Your task to perform on an android device: remove spam from my inbox in the gmail app Image 0: 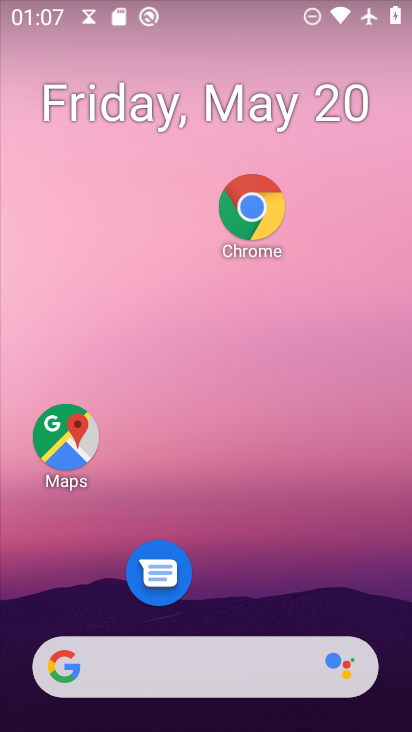
Step 0: drag from (281, 581) to (255, 30)
Your task to perform on an android device: remove spam from my inbox in the gmail app Image 1: 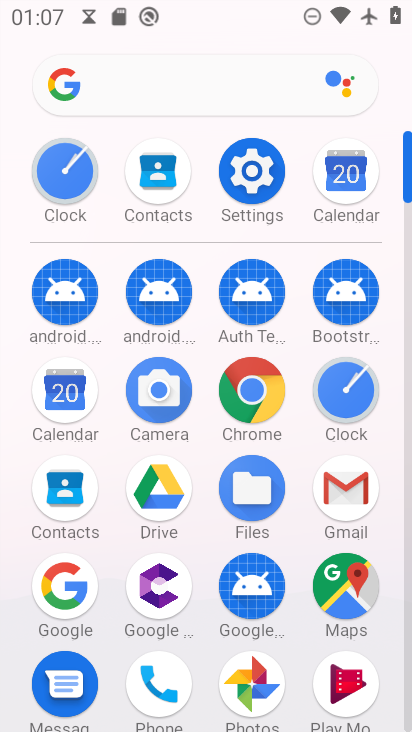
Step 1: click (333, 498)
Your task to perform on an android device: remove spam from my inbox in the gmail app Image 2: 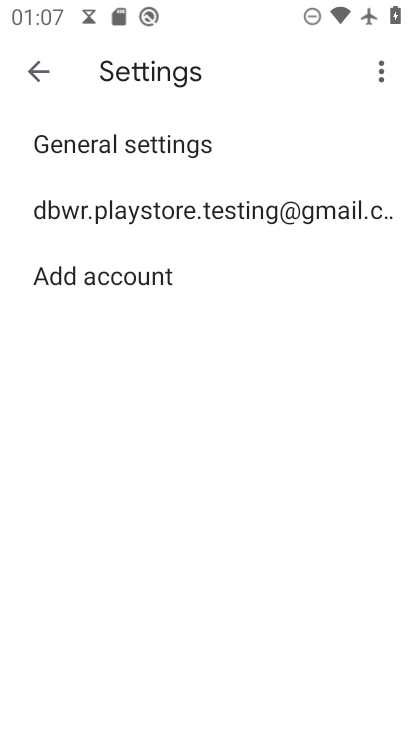
Step 2: click (30, 57)
Your task to perform on an android device: remove spam from my inbox in the gmail app Image 3: 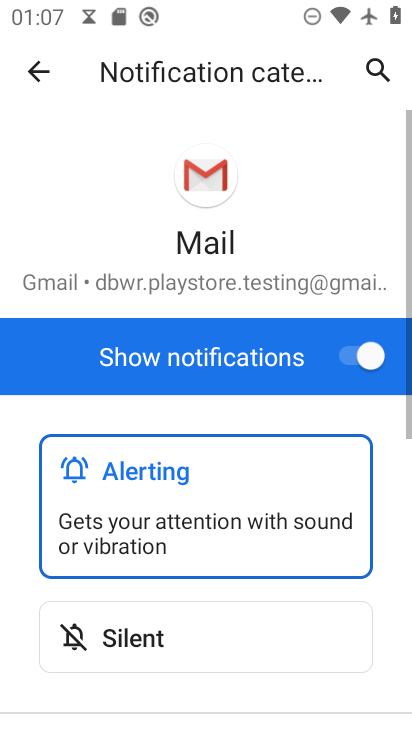
Step 3: click (38, 76)
Your task to perform on an android device: remove spam from my inbox in the gmail app Image 4: 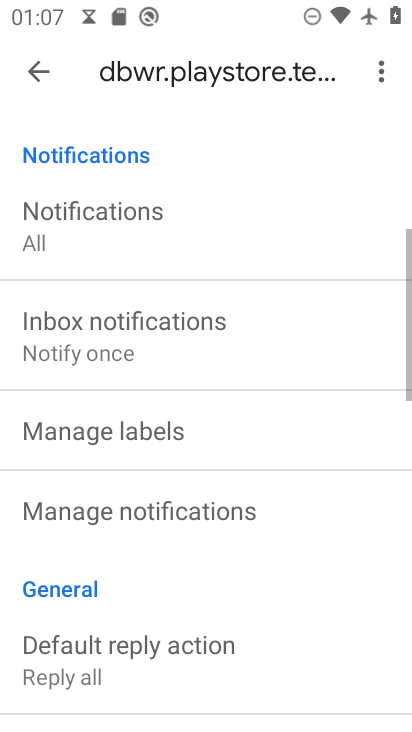
Step 4: click (38, 76)
Your task to perform on an android device: remove spam from my inbox in the gmail app Image 5: 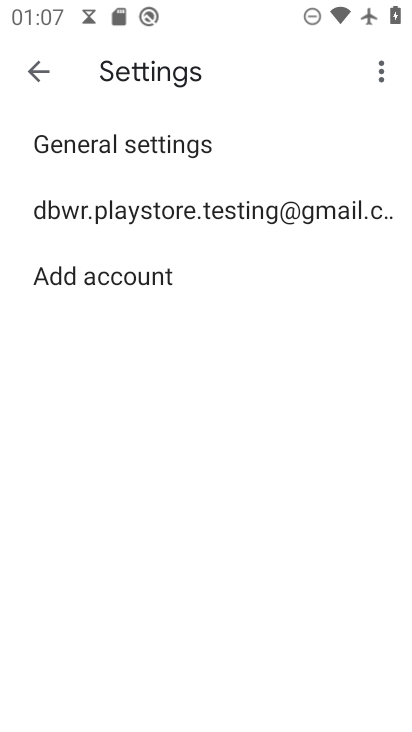
Step 5: click (37, 77)
Your task to perform on an android device: remove spam from my inbox in the gmail app Image 6: 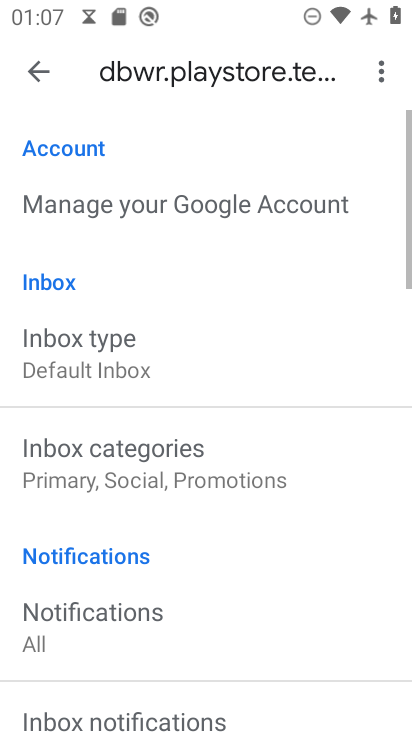
Step 6: click (37, 77)
Your task to perform on an android device: remove spam from my inbox in the gmail app Image 7: 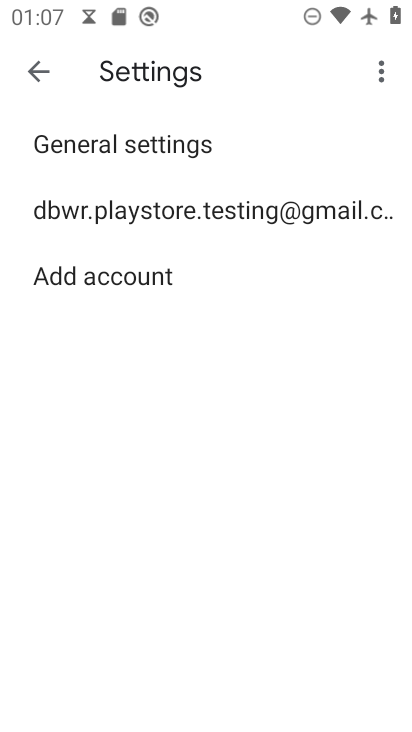
Step 7: click (37, 77)
Your task to perform on an android device: remove spam from my inbox in the gmail app Image 8: 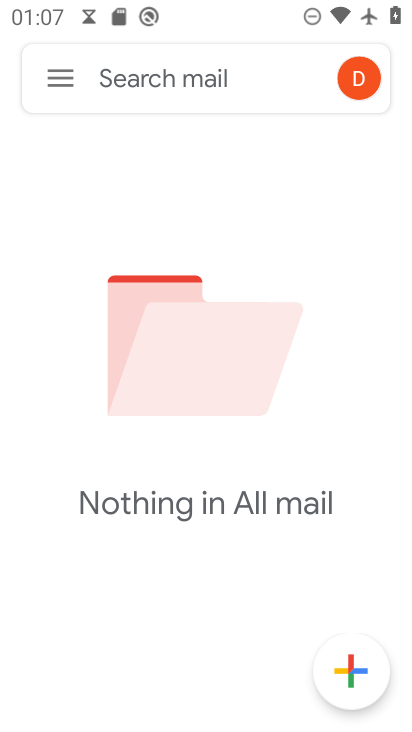
Step 8: click (42, 73)
Your task to perform on an android device: remove spam from my inbox in the gmail app Image 9: 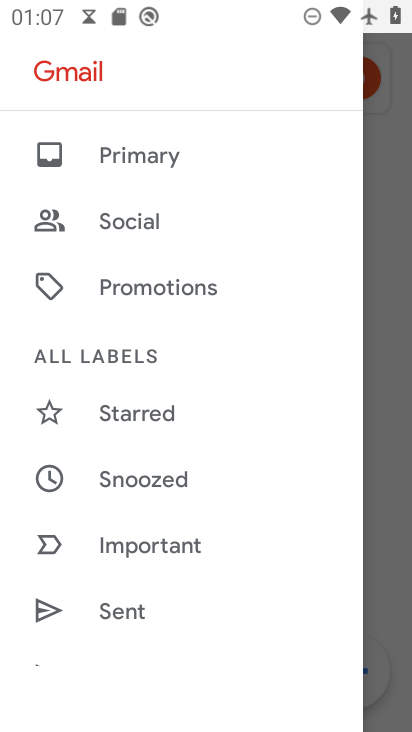
Step 9: drag from (147, 554) to (157, 202)
Your task to perform on an android device: remove spam from my inbox in the gmail app Image 10: 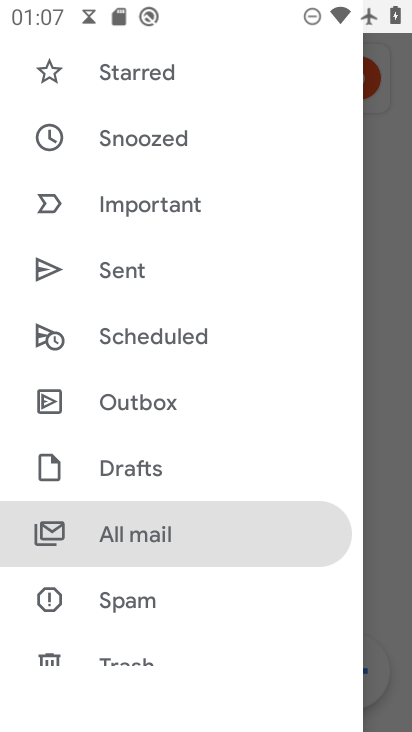
Step 10: click (140, 584)
Your task to perform on an android device: remove spam from my inbox in the gmail app Image 11: 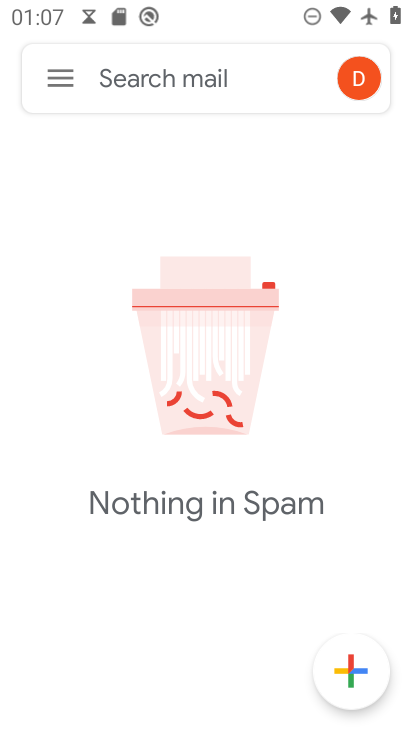
Step 11: task complete